Your task to perform on an android device: Go to network settings Image 0: 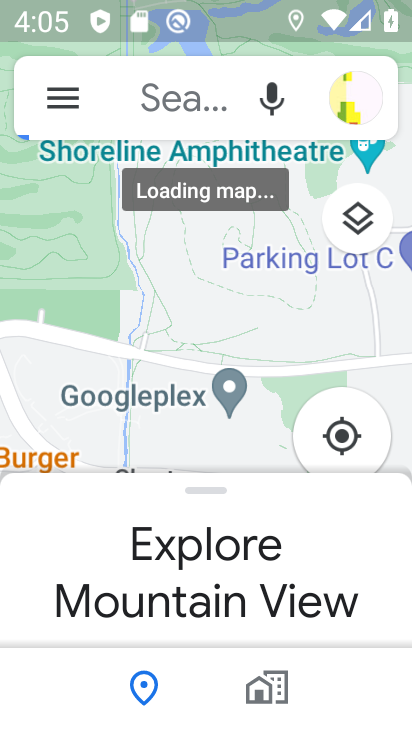
Step 0: press home button
Your task to perform on an android device: Go to network settings Image 1: 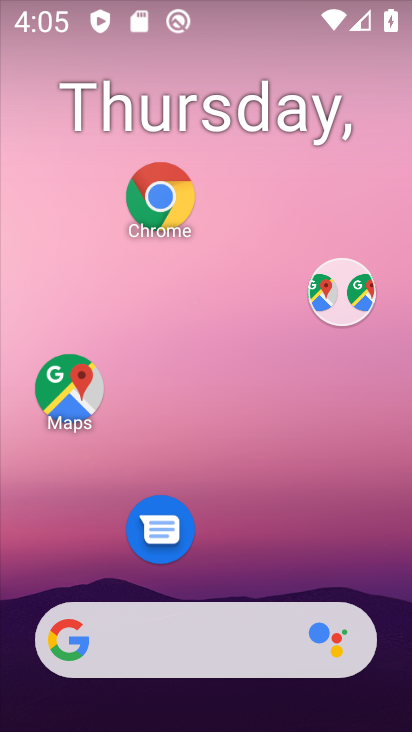
Step 1: drag from (220, 608) to (138, 124)
Your task to perform on an android device: Go to network settings Image 2: 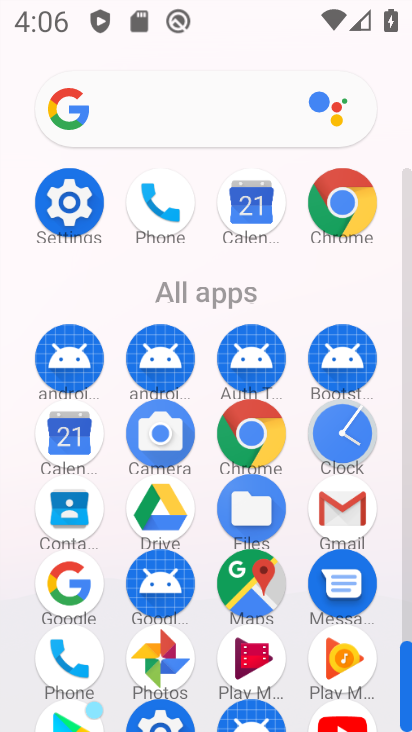
Step 2: click (69, 192)
Your task to perform on an android device: Go to network settings Image 3: 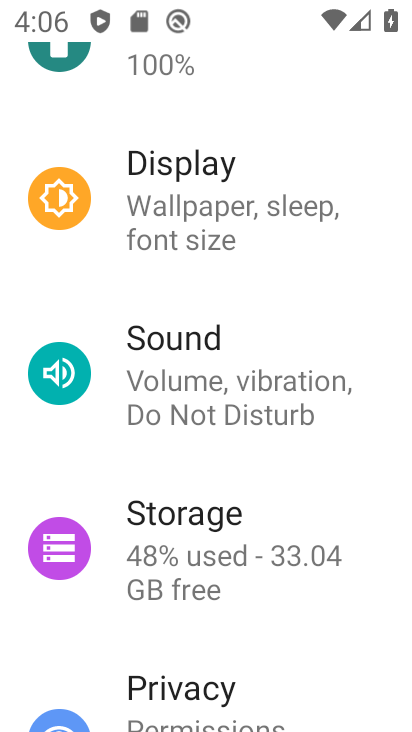
Step 3: drag from (156, 246) to (148, 729)
Your task to perform on an android device: Go to network settings Image 4: 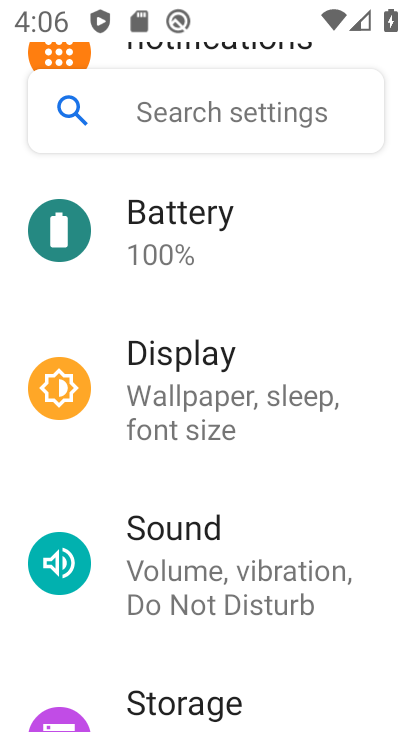
Step 4: drag from (332, 219) to (402, 454)
Your task to perform on an android device: Go to network settings Image 5: 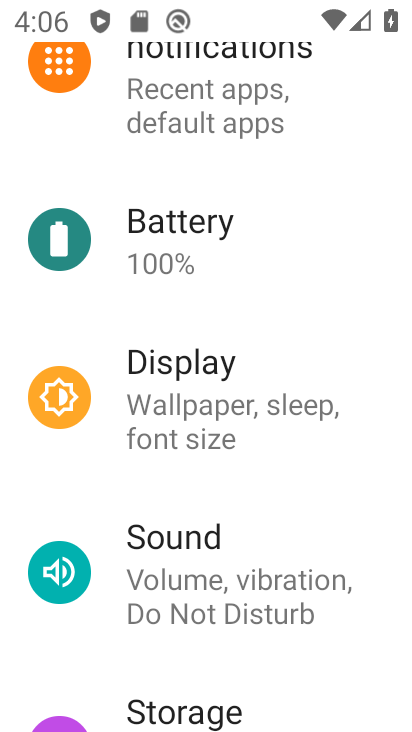
Step 5: drag from (288, 241) to (398, 272)
Your task to perform on an android device: Go to network settings Image 6: 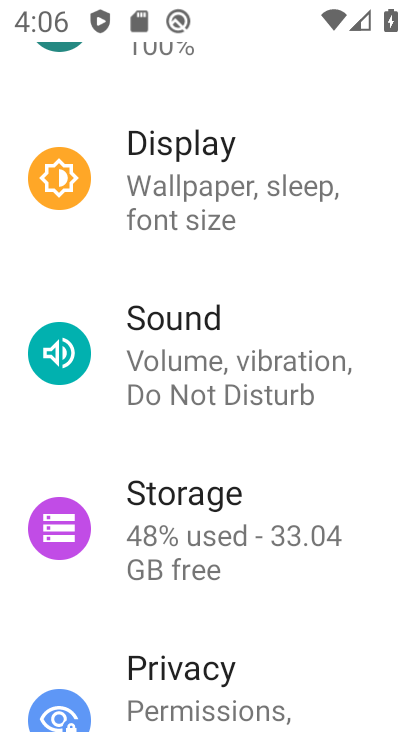
Step 6: drag from (263, 171) to (379, 635)
Your task to perform on an android device: Go to network settings Image 7: 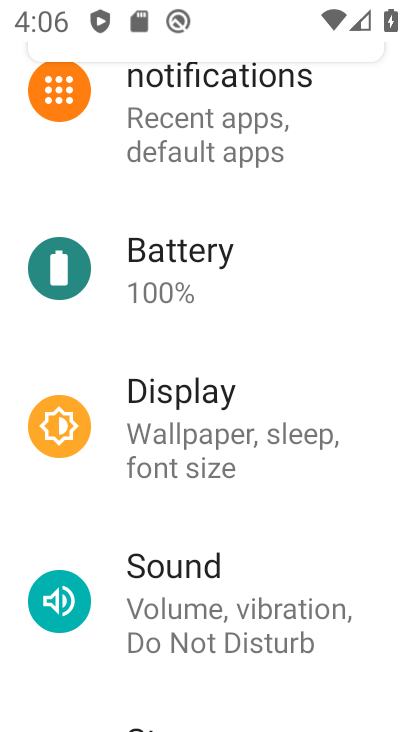
Step 7: drag from (220, 248) to (402, 532)
Your task to perform on an android device: Go to network settings Image 8: 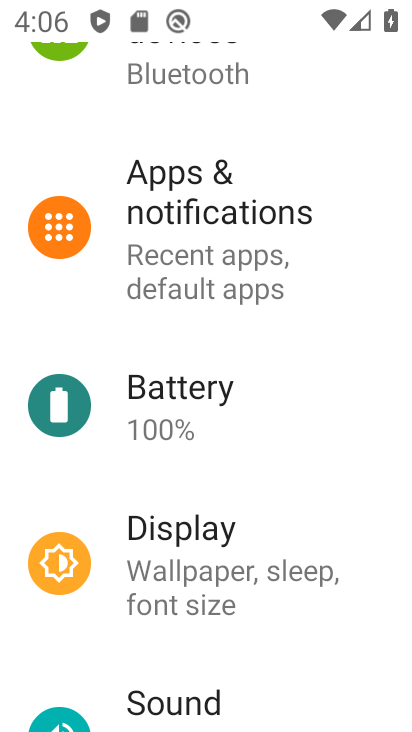
Step 8: drag from (249, 184) to (408, 529)
Your task to perform on an android device: Go to network settings Image 9: 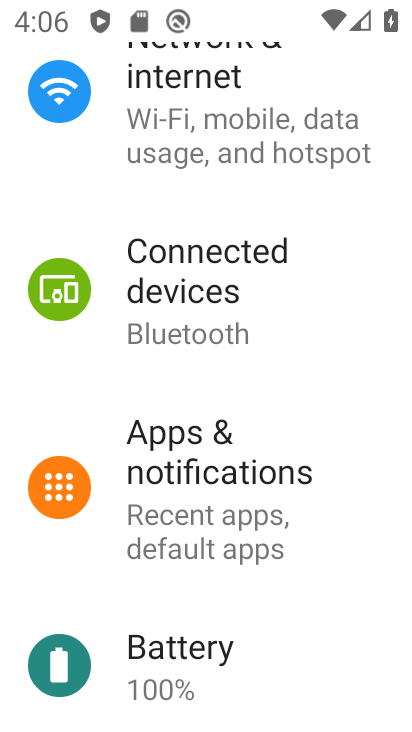
Step 9: click (232, 88)
Your task to perform on an android device: Go to network settings Image 10: 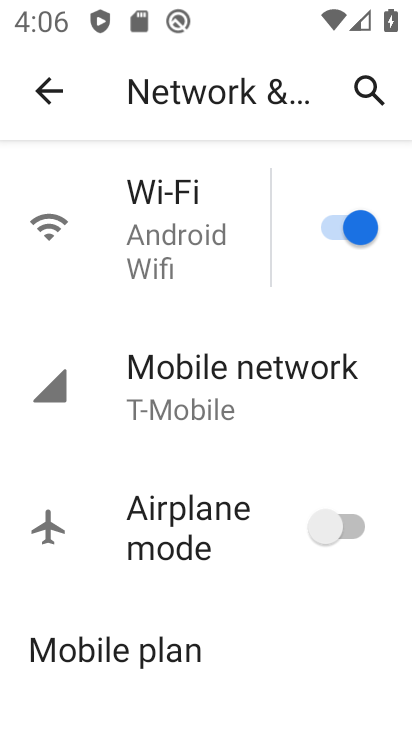
Step 10: task complete